Your task to perform on an android device: Show me productivity apps on the Play Store Image 0: 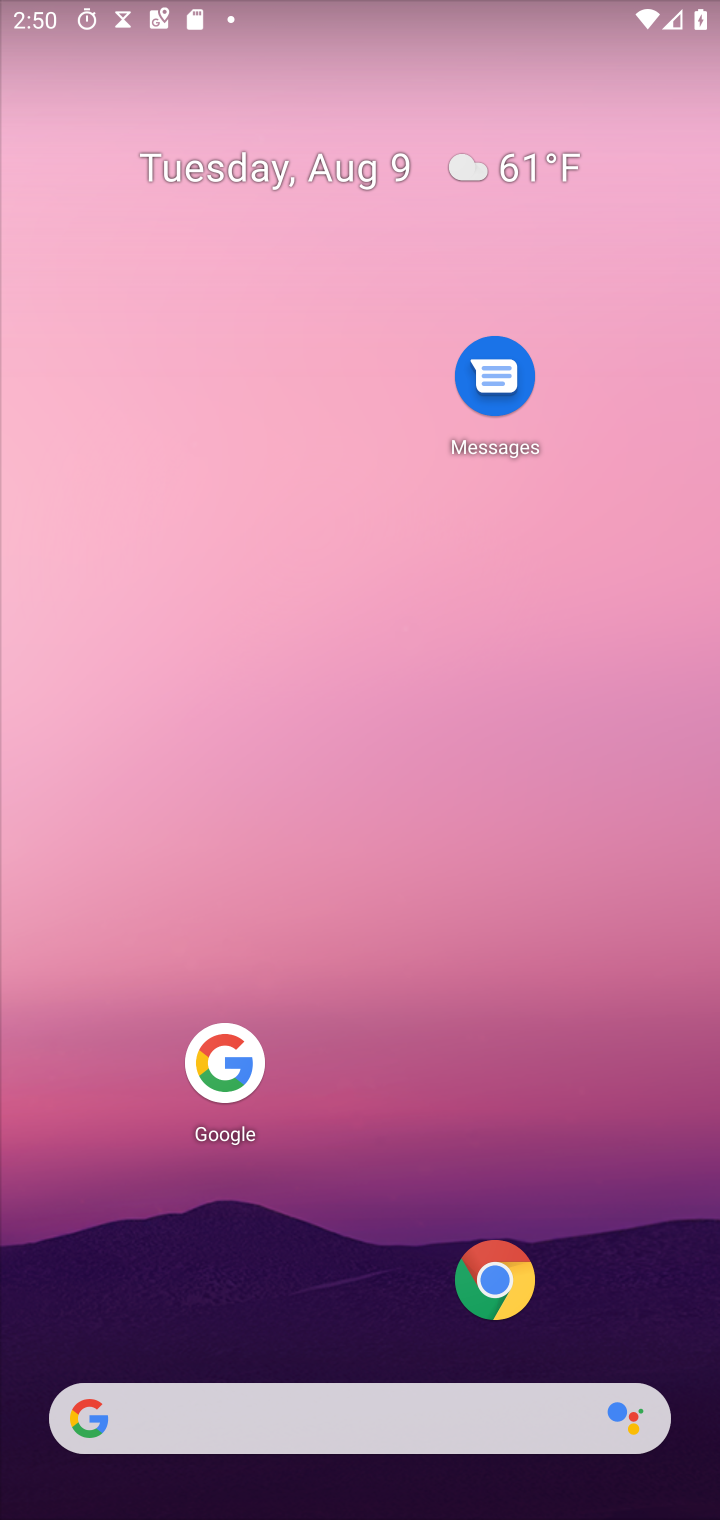
Step 0: press home button
Your task to perform on an android device: Show me productivity apps on the Play Store Image 1: 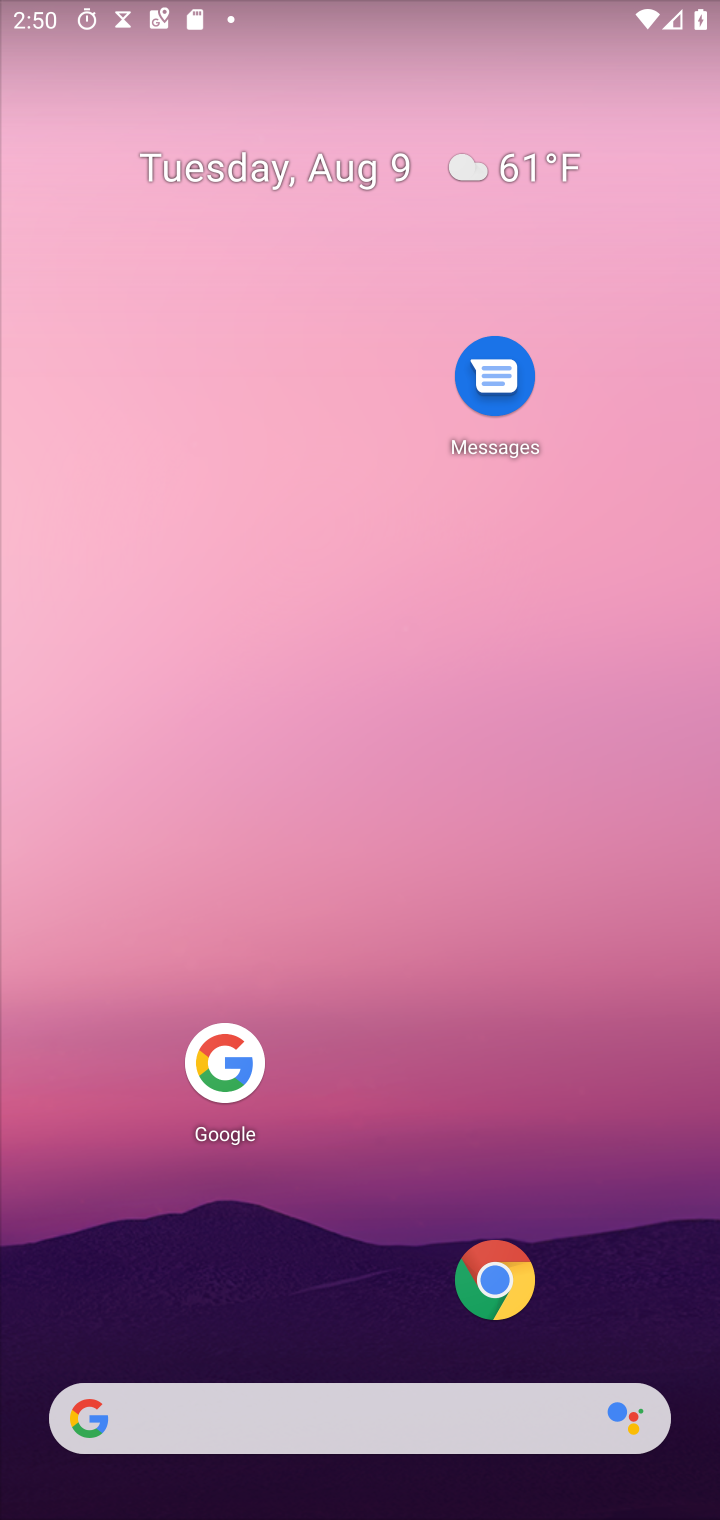
Step 1: drag from (294, 1406) to (488, 496)
Your task to perform on an android device: Show me productivity apps on the Play Store Image 2: 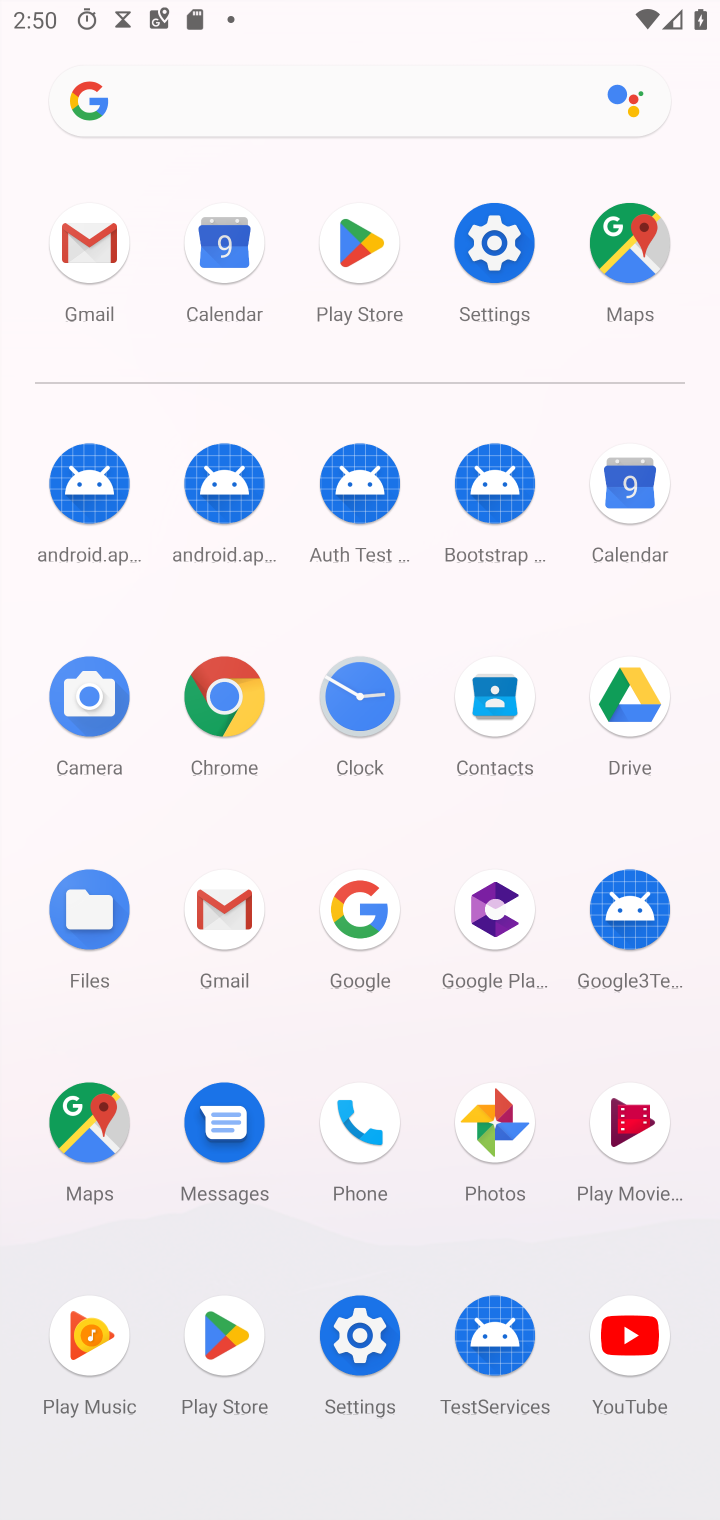
Step 2: click (210, 1337)
Your task to perform on an android device: Show me productivity apps on the Play Store Image 3: 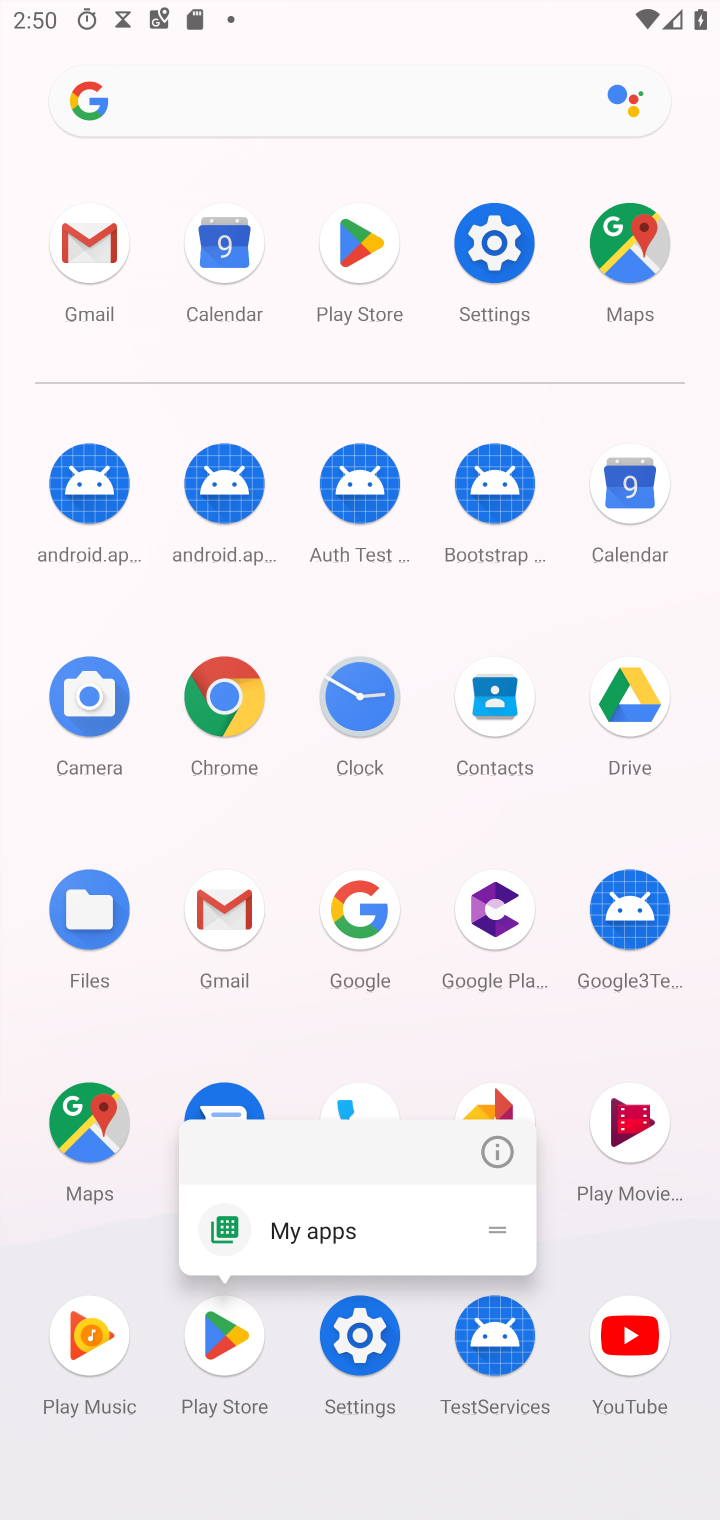
Step 3: click (214, 1338)
Your task to perform on an android device: Show me productivity apps on the Play Store Image 4: 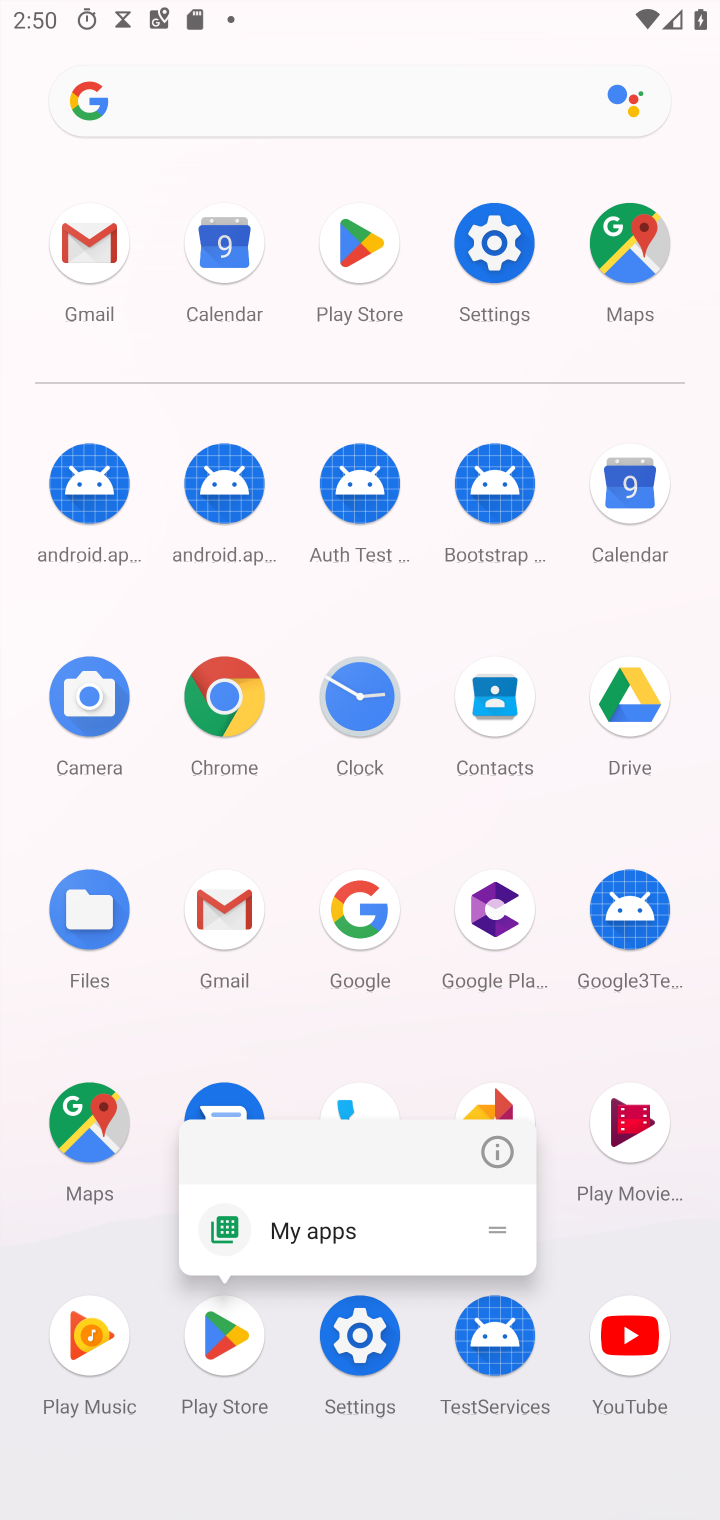
Step 4: click (214, 1340)
Your task to perform on an android device: Show me productivity apps on the Play Store Image 5: 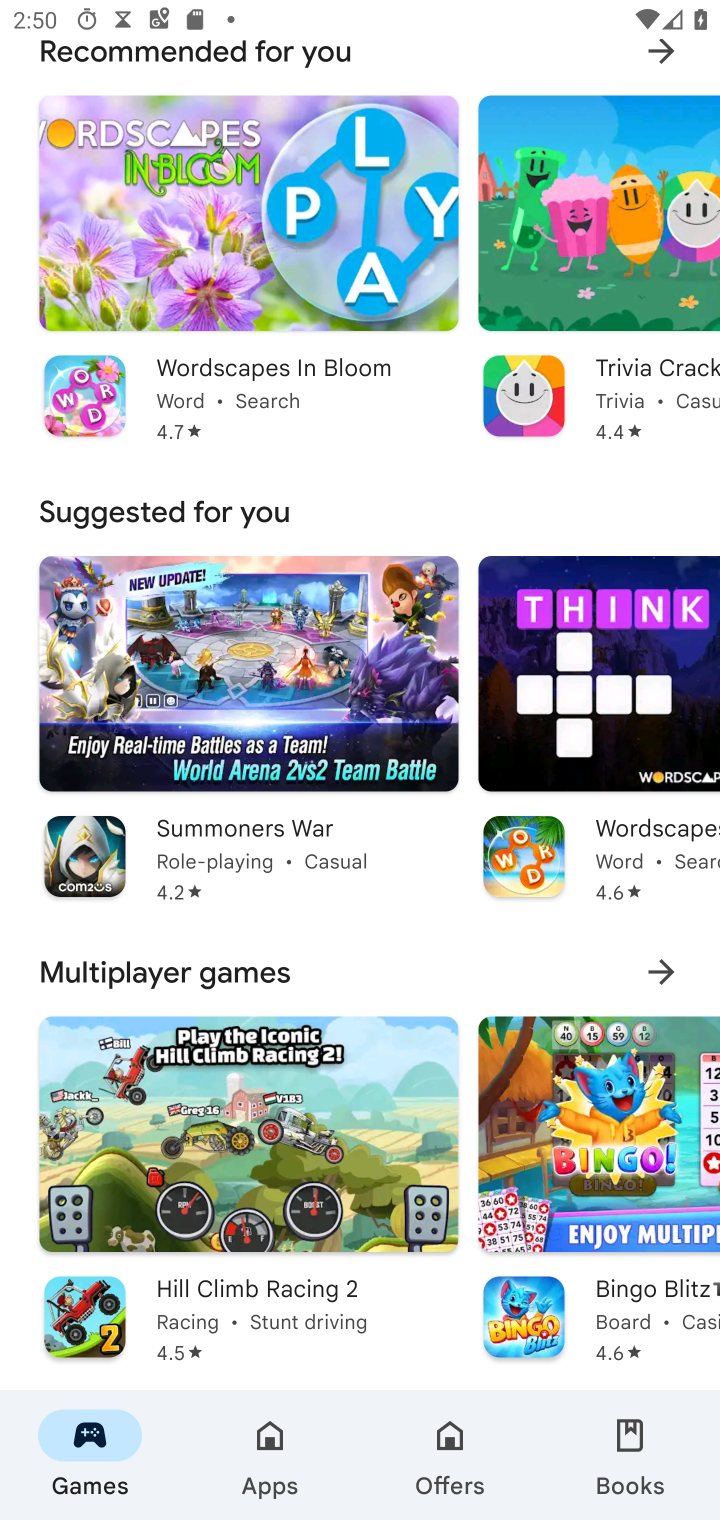
Step 5: click (259, 1444)
Your task to perform on an android device: Show me productivity apps on the Play Store Image 6: 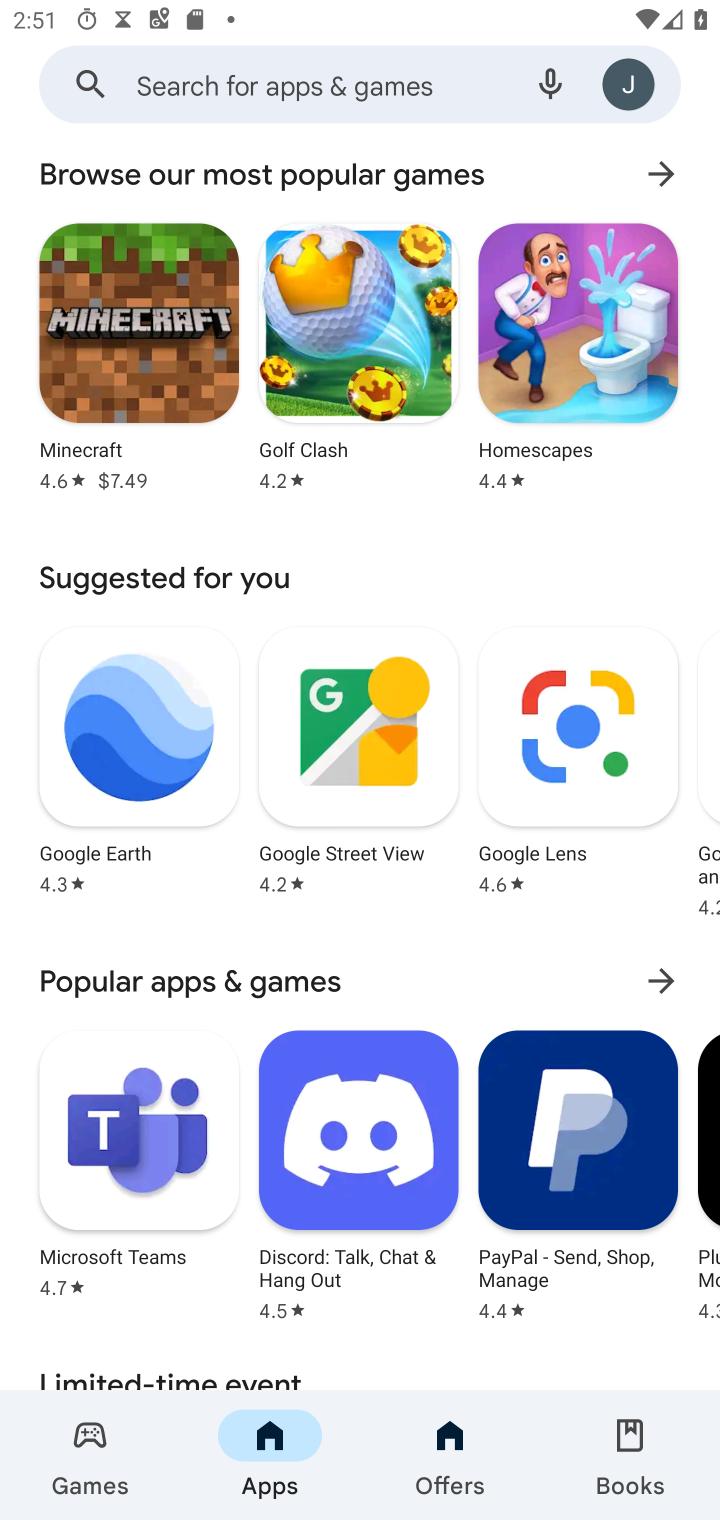
Step 6: task complete